Your task to perform on an android device: manage bookmarks in the chrome app Image 0: 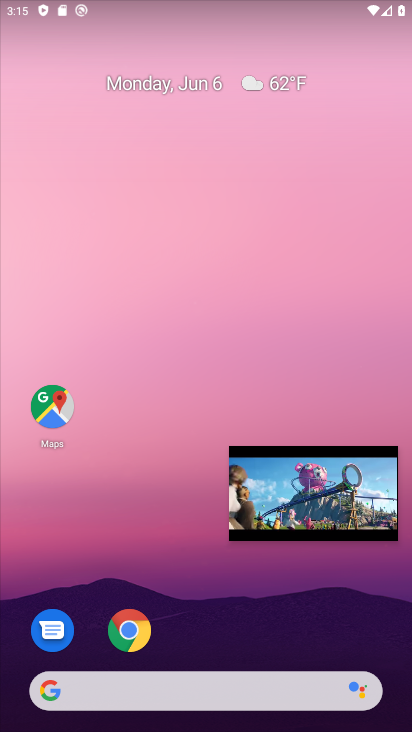
Step 0: click (114, 624)
Your task to perform on an android device: manage bookmarks in the chrome app Image 1: 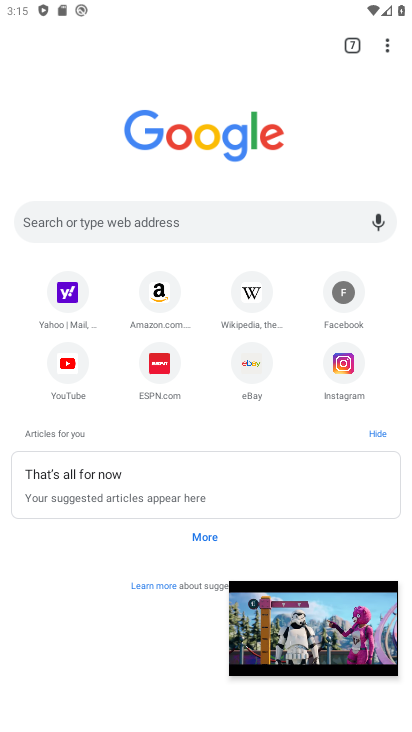
Step 1: click (317, 635)
Your task to perform on an android device: manage bookmarks in the chrome app Image 2: 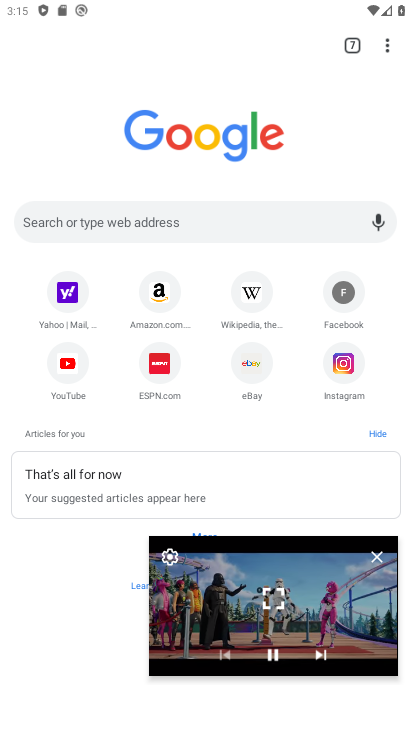
Step 2: click (373, 564)
Your task to perform on an android device: manage bookmarks in the chrome app Image 3: 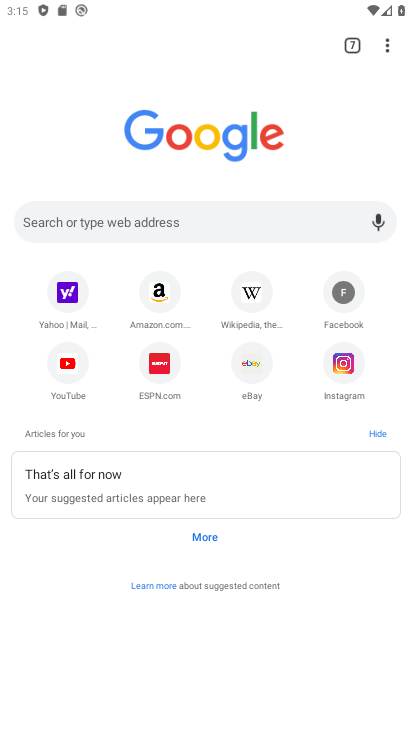
Step 3: task complete